Your task to perform on an android device: Open CNN.com Image 0: 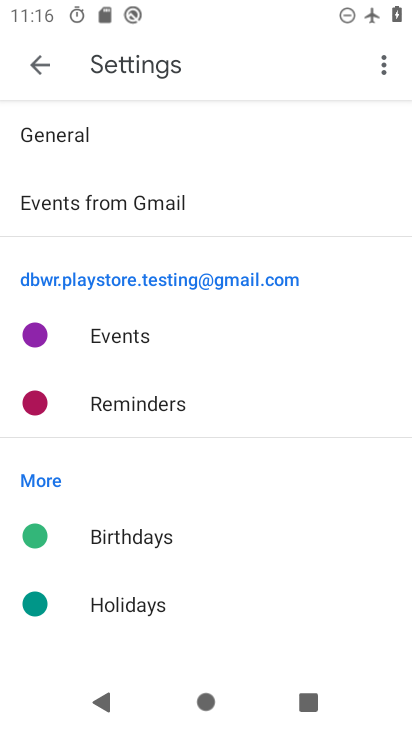
Step 0: press home button
Your task to perform on an android device: Open CNN.com Image 1: 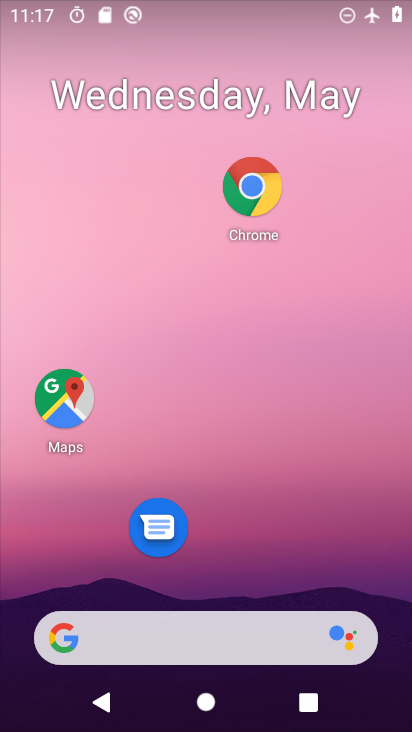
Step 1: click (273, 183)
Your task to perform on an android device: Open CNN.com Image 2: 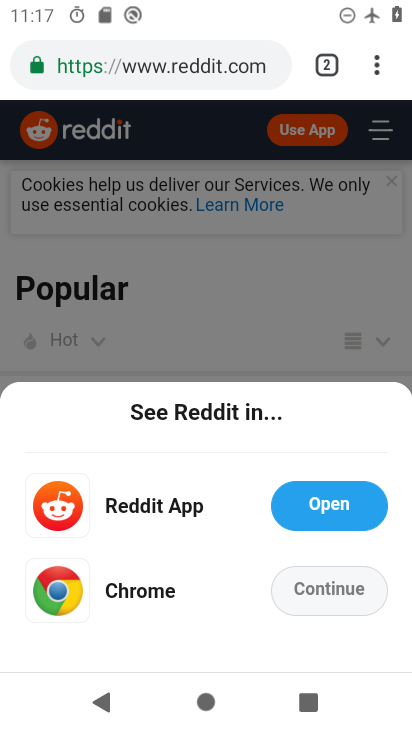
Step 2: click (245, 81)
Your task to perform on an android device: Open CNN.com Image 3: 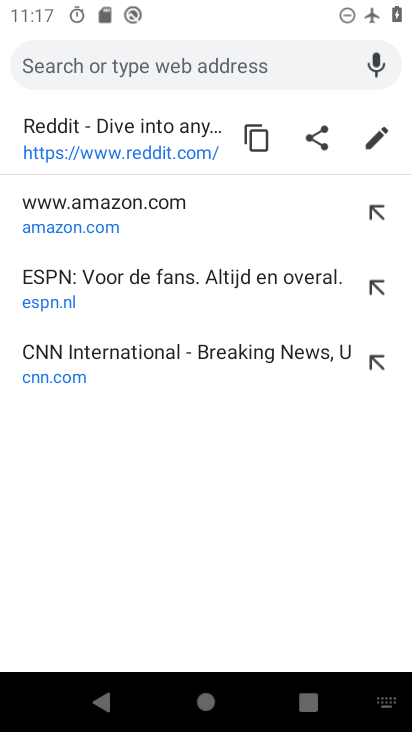
Step 3: type "cnn"
Your task to perform on an android device: Open CNN.com Image 4: 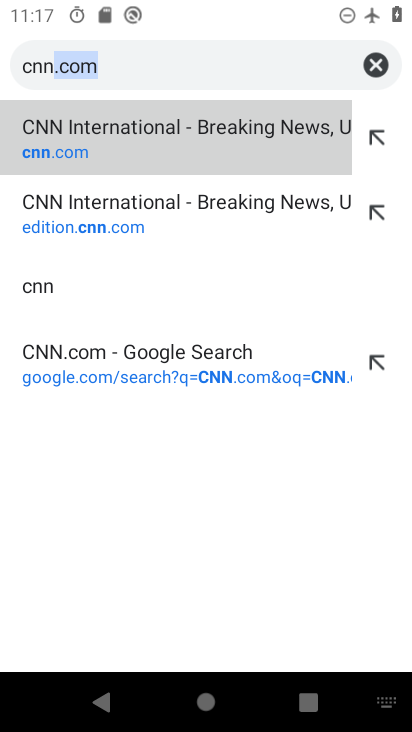
Step 4: click (299, 148)
Your task to perform on an android device: Open CNN.com Image 5: 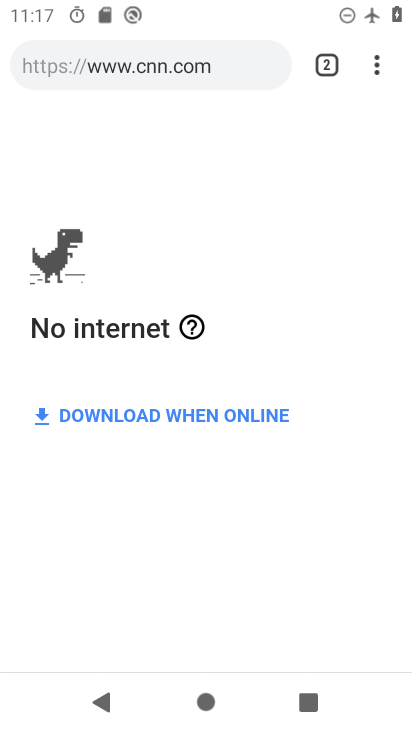
Step 5: task complete